Your task to perform on an android device: Show me recent news Image 0: 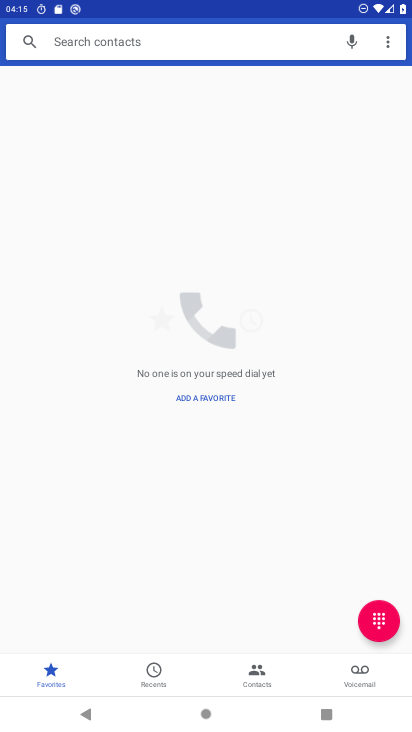
Step 0: press home button
Your task to perform on an android device: Show me recent news Image 1: 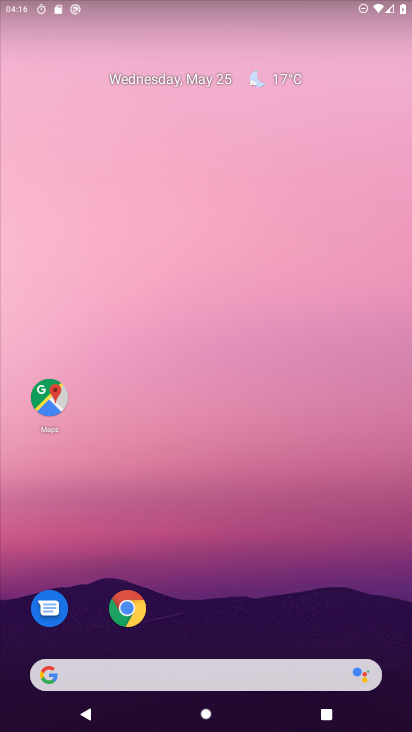
Step 1: click (121, 605)
Your task to perform on an android device: Show me recent news Image 2: 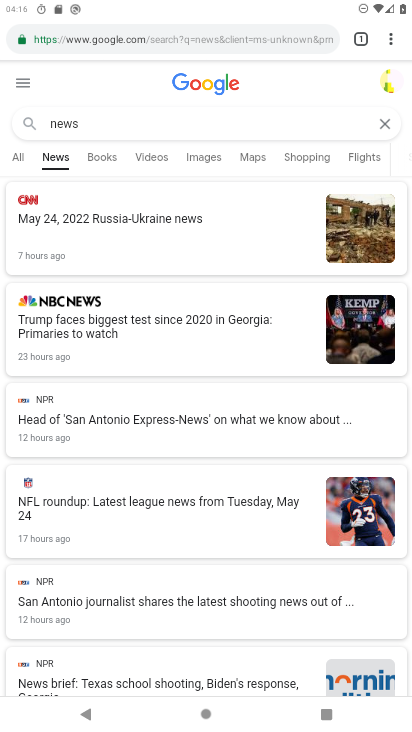
Step 2: task complete